Your task to perform on an android device: remove spam from my inbox in the gmail app Image 0: 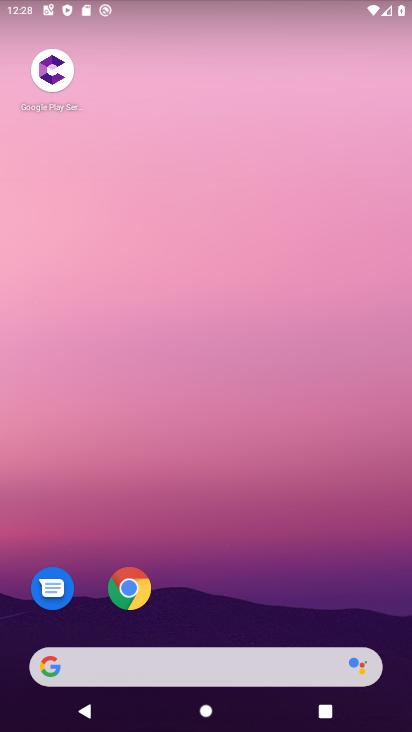
Step 0: drag from (249, 555) to (188, 0)
Your task to perform on an android device: remove spam from my inbox in the gmail app Image 1: 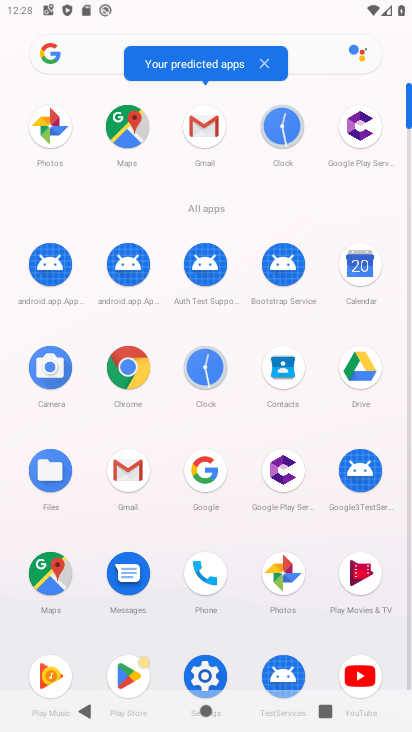
Step 1: click (217, 130)
Your task to perform on an android device: remove spam from my inbox in the gmail app Image 2: 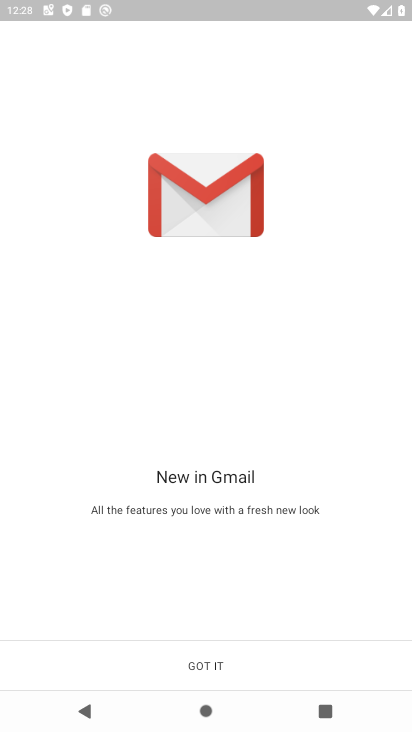
Step 2: click (212, 655)
Your task to perform on an android device: remove spam from my inbox in the gmail app Image 3: 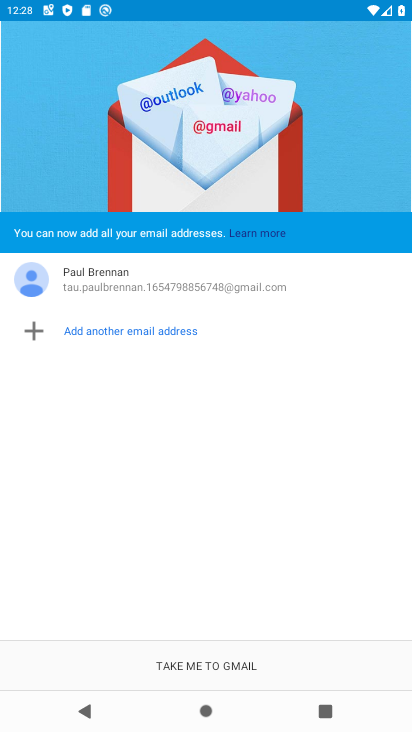
Step 3: click (212, 655)
Your task to perform on an android device: remove spam from my inbox in the gmail app Image 4: 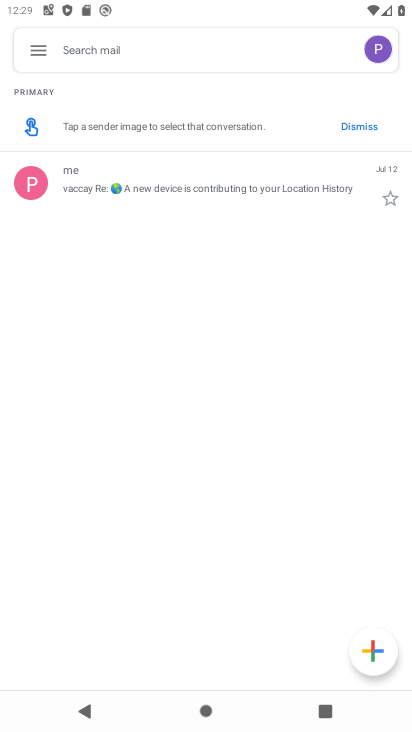
Step 4: click (34, 49)
Your task to perform on an android device: remove spam from my inbox in the gmail app Image 5: 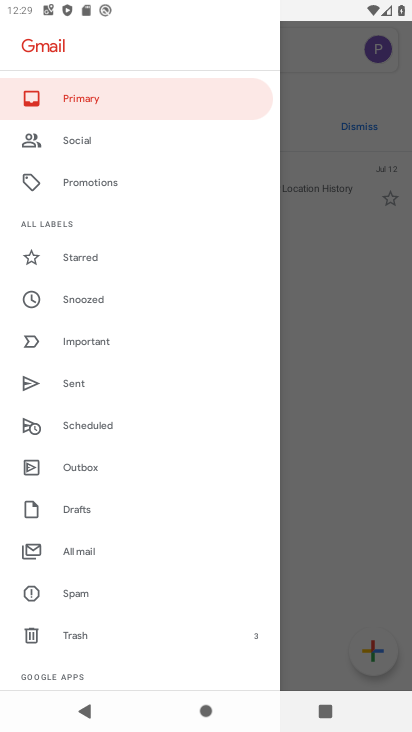
Step 5: click (93, 588)
Your task to perform on an android device: remove spam from my inbox in the gmail app Image 6: 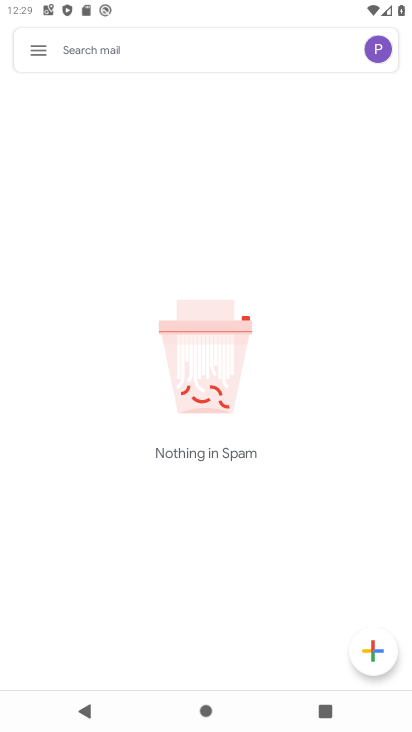
Step 6: task complete